Your task to perform on an android device: turn on notifications settings in the gmail app Image 0: 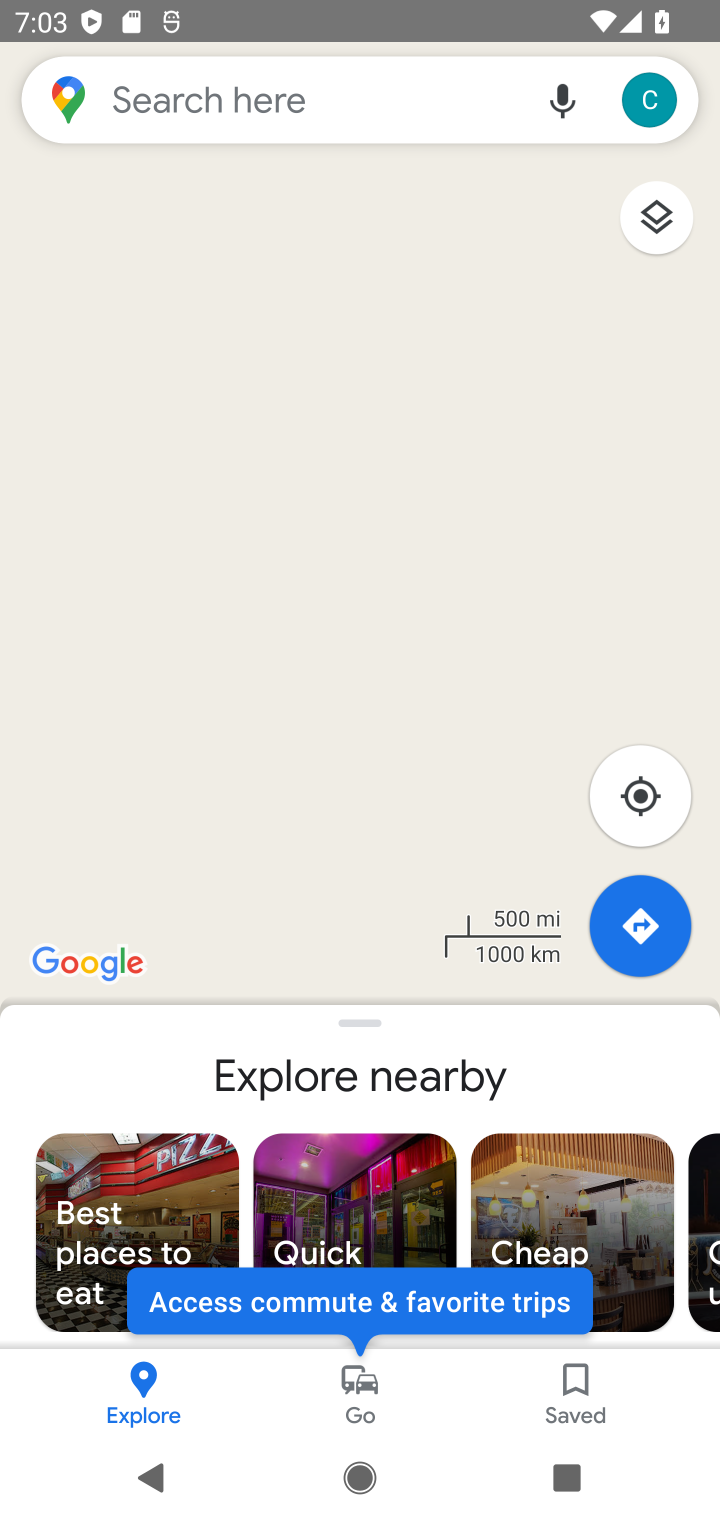
Step 0: press home button
Your task to perform on an android device: turn on notifications settings in the gmail app Image 1: 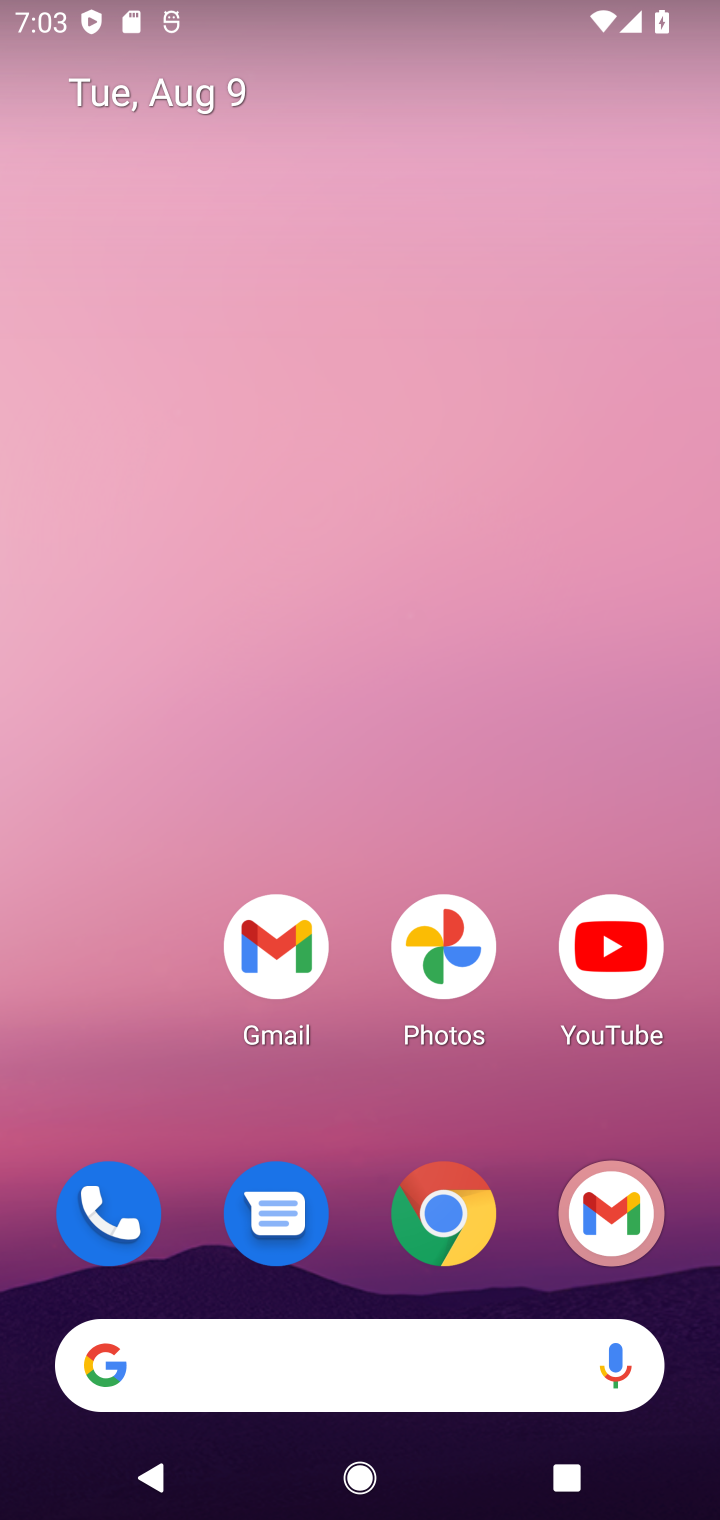
Step 1: click (252, 962)
Your task to perform on an android device: turn on notifications settings in the gmail app Image 2: 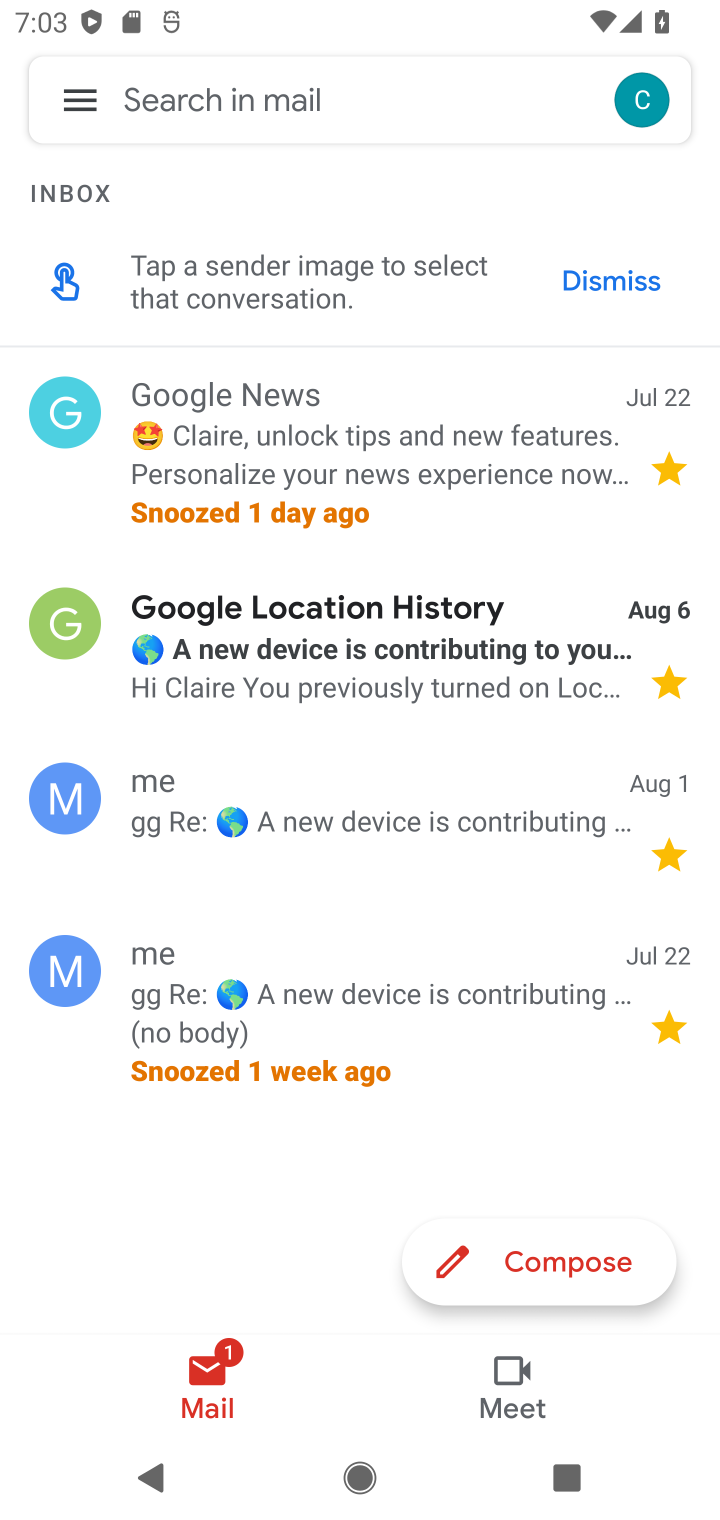
Step 2: click (80, 122)
Your task to perform on an android device: turn on notifications settings in the gmail app Image 3: 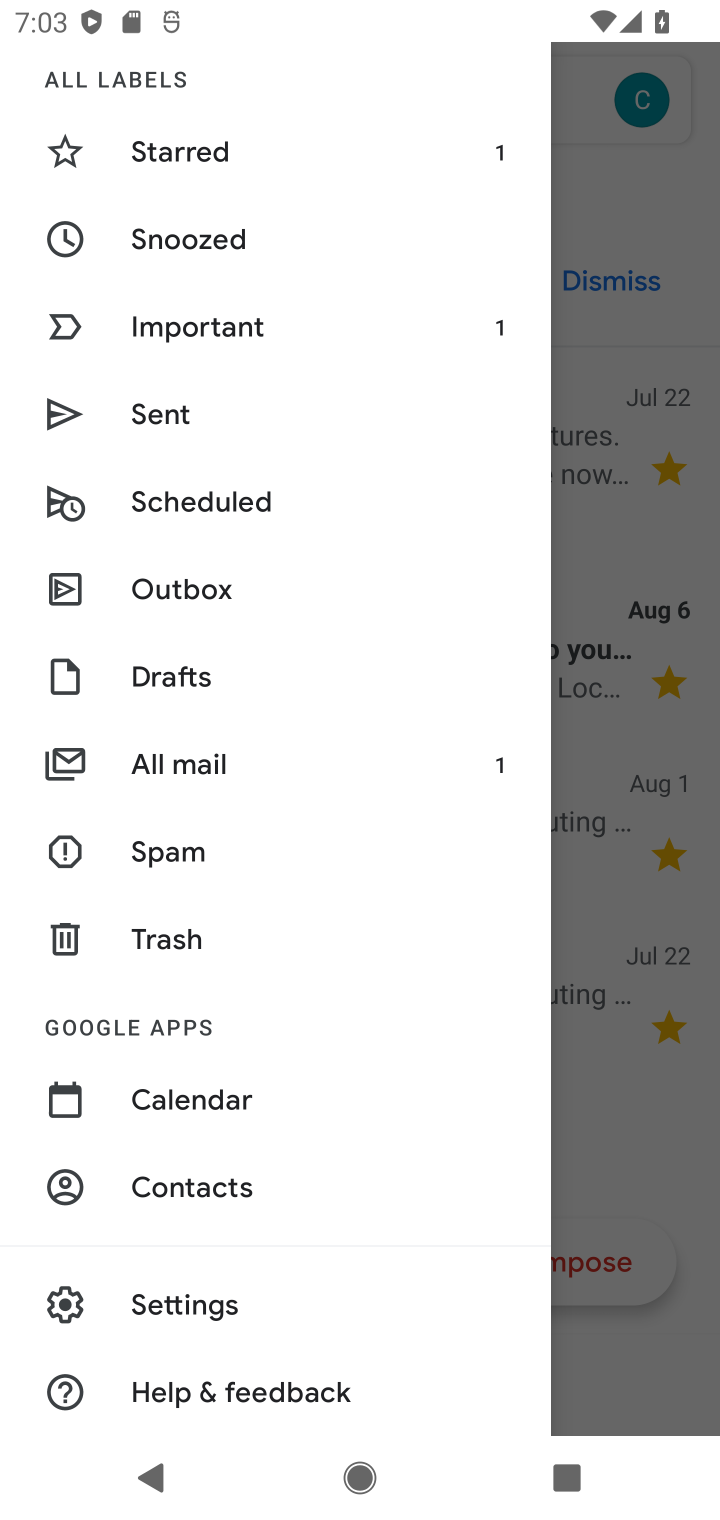
Step 3: click (110, 1298)
Your task to perform on an android device: turn on notifications settings in the gmail app Image 4: 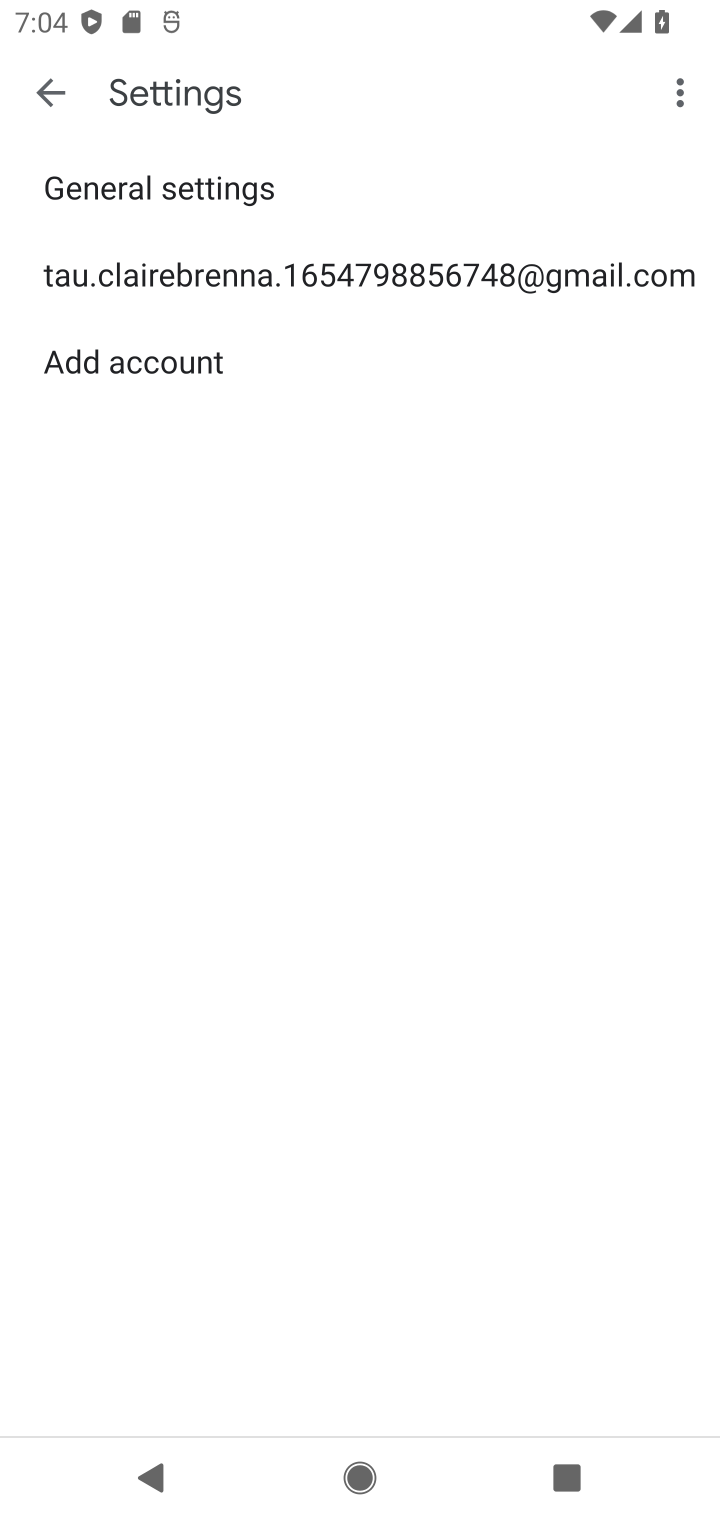
Step 4: click (175, 205)
Your task to perform on an android device: turn on notifications settings in the gmail app Image 5: 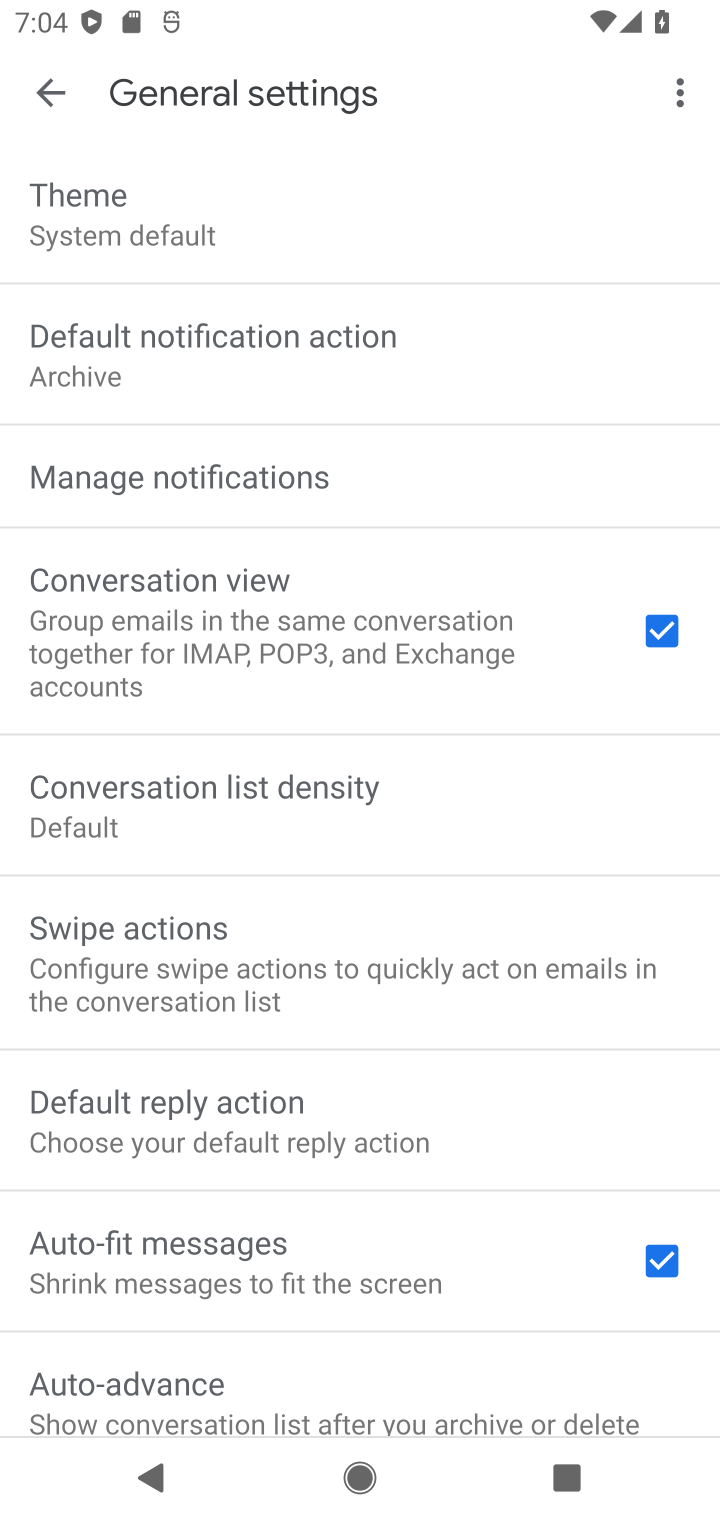
Step 5: click (138, 479)
Your task to perform on an android device: turn on notifications settings in the gmail app Image 6: 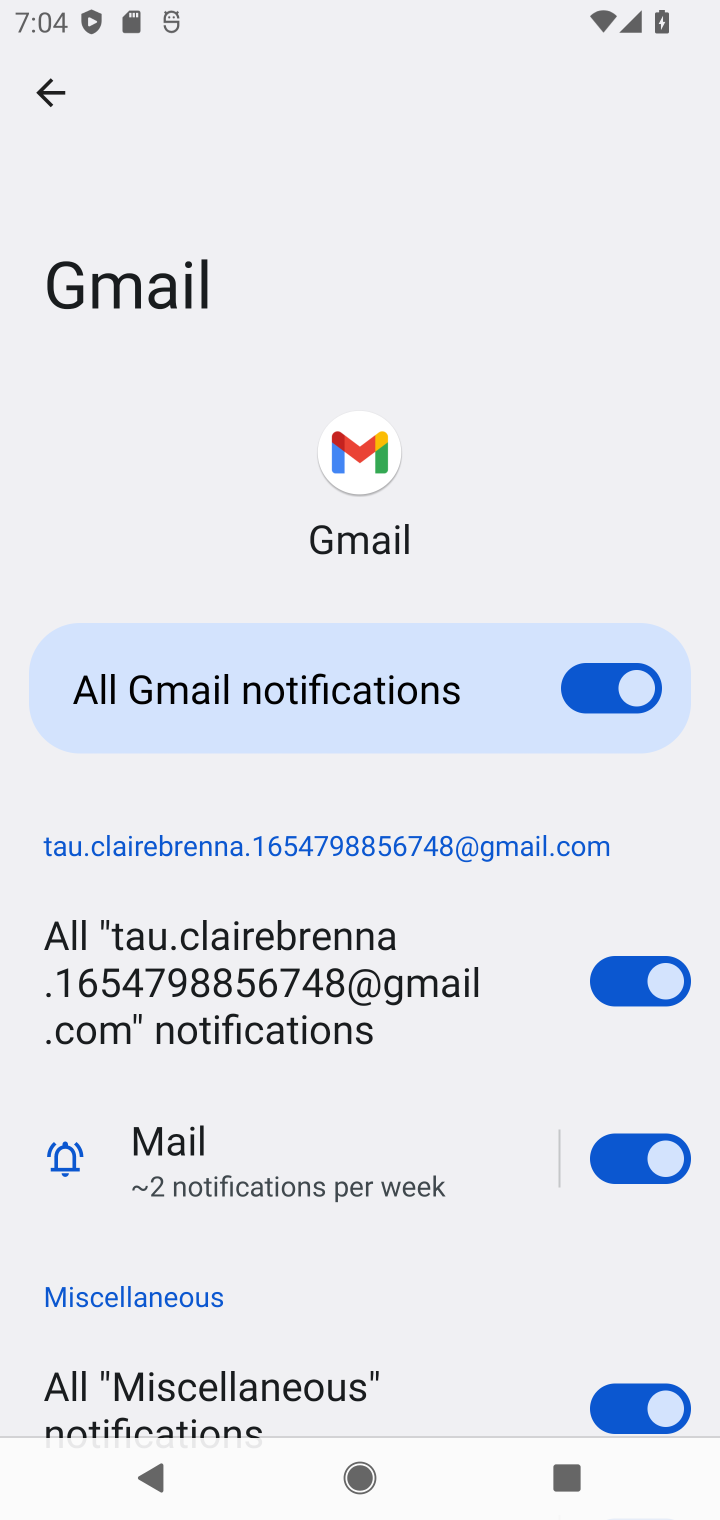
Step 6: task complete